Your task to perform on an android device: delete the emails in spam in the gmail app Image 0: 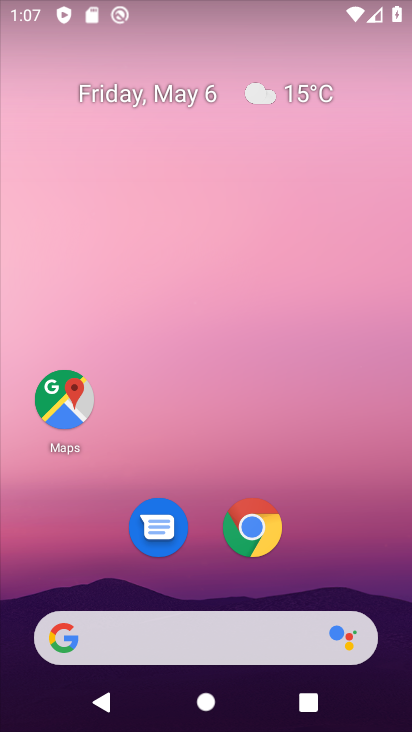
Step 0: drag from (112, 599) to (249, 133)
Your task to perform on an android device: delete the emails in spam in the gmail app Image 1: 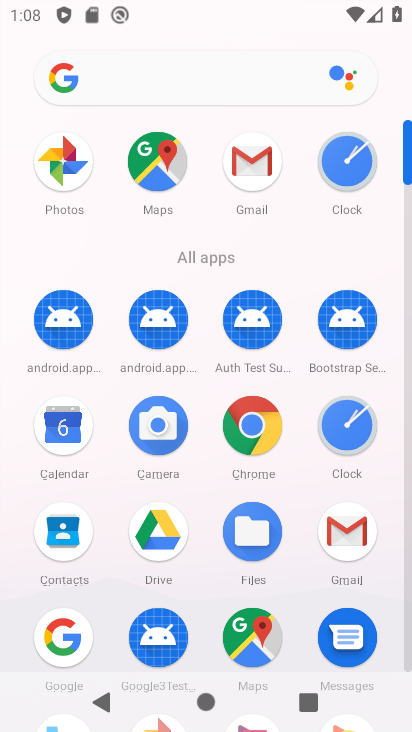
Step 1: click (243, 176)
Your task to perform on an android device: delete the emails in spam in the gmail app Image 2: 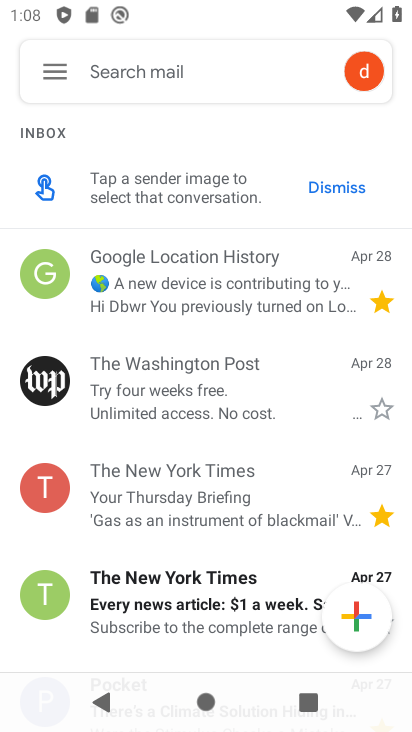
Step 2: click (38, 83)
Your task to perform on an android device: delete the emails in spam in the gmail app Image 3: 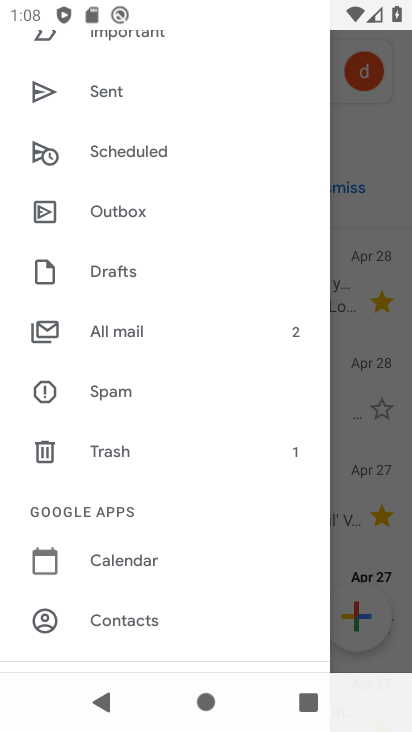
Step 3: click (64, 399)
Your task to perform on an android device: delete the emails in spam in the gmail app Image 4: 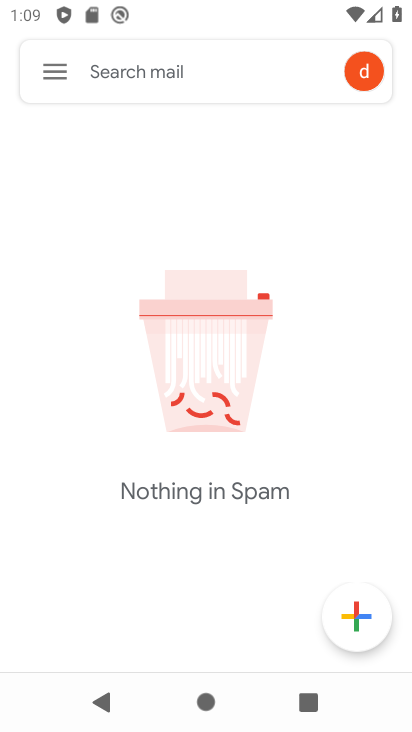
Step 4: task complete